Your task to perform on an android device: Open settings Image 0: 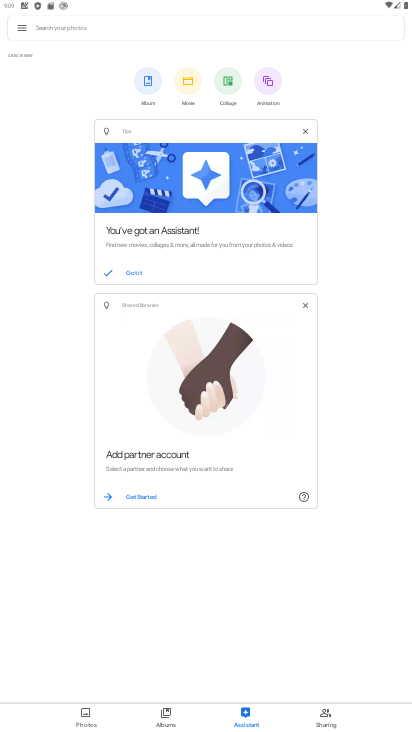
Step 0: drag from (355, 6) to (348, 711)
Your task to perform on an android device: Open settings Image 1: 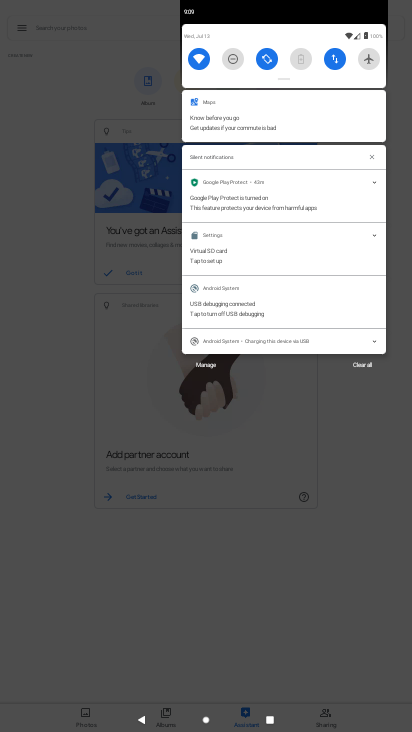
Step 1: drag from (230, 43) to (260, 570)
Your task to perform on an android device: Open settings Image 2: 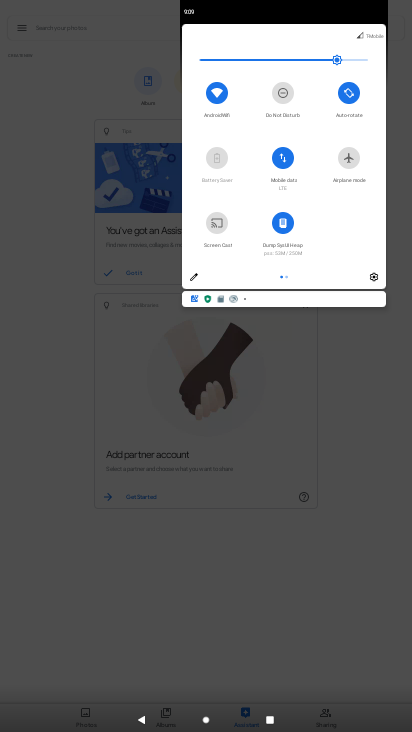
Step 2: click (371, 278)
Your task to perform on an android device: Open settings Image 3: 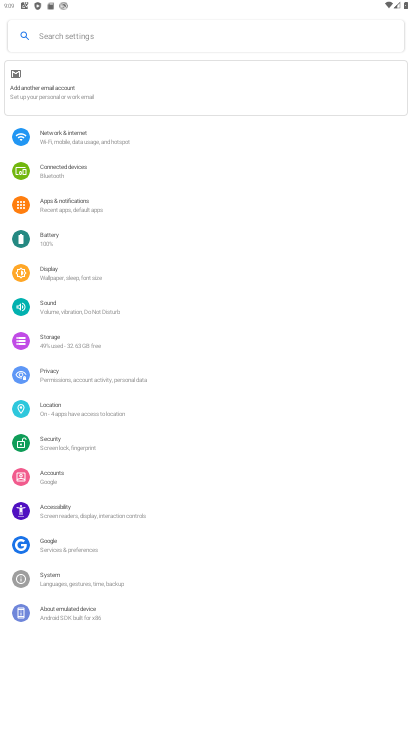
Step 3: task complete